Your task to perform on an android device: toggle sleep mode Image 0: 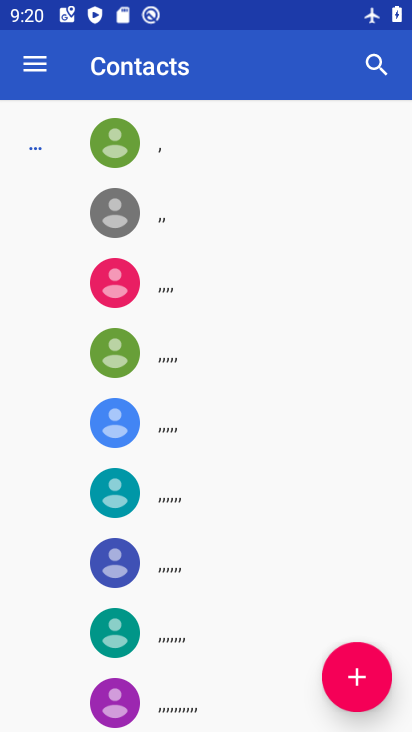
Step 0: press home button
Your task to perform on an android device: toggle sleep mode Image 1: 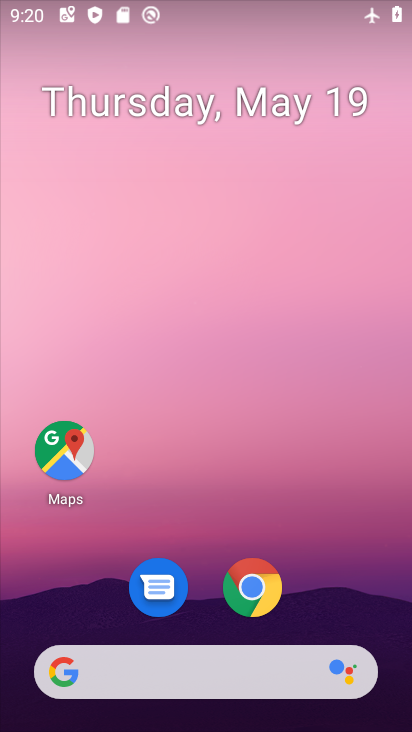
Step 1: click (176, 304)
Your task to perform on an android device: toggle sleep mode Image 2: 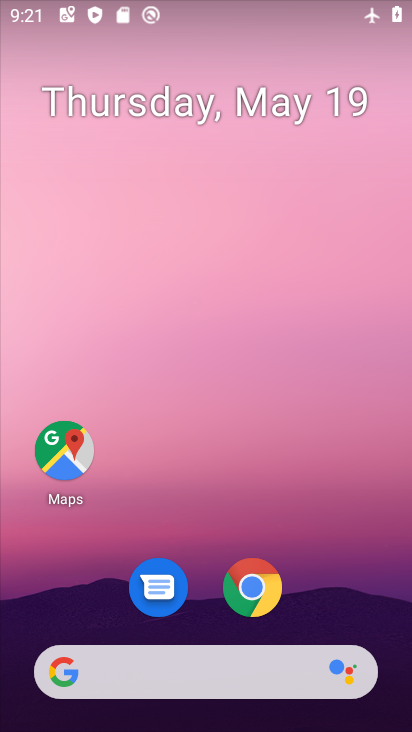
Step 2: drag from (176, 667) to (206, 78)
Your task to perform on an android device: toggle sleep mode Image 3: 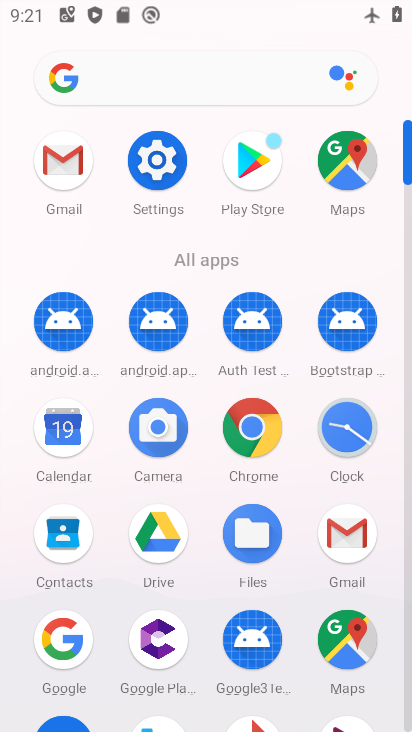
Step 3: click (160, 163)
Your task to perform on an android device: toggle sleep mode Image 4: 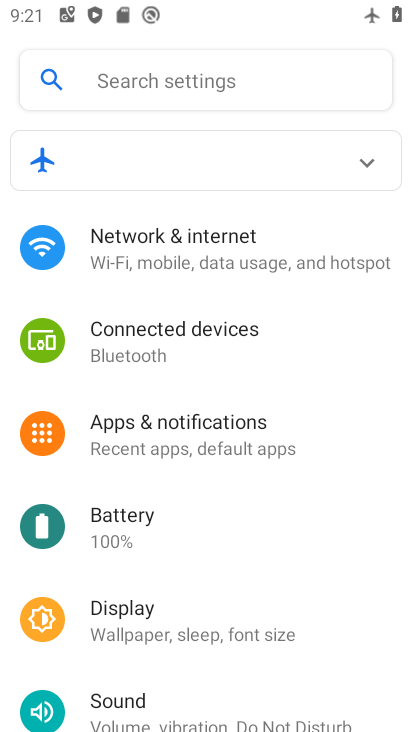
Step 4: click (141, 636)
Your task to perform on an android device: toggle sleep mode Image 5: 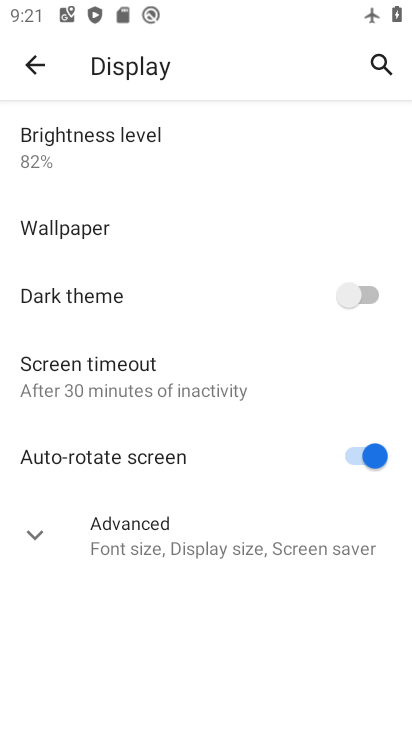
Step 5: click (159, 547)
Your task to perform on an android device: toggle sleep mode Image 6: 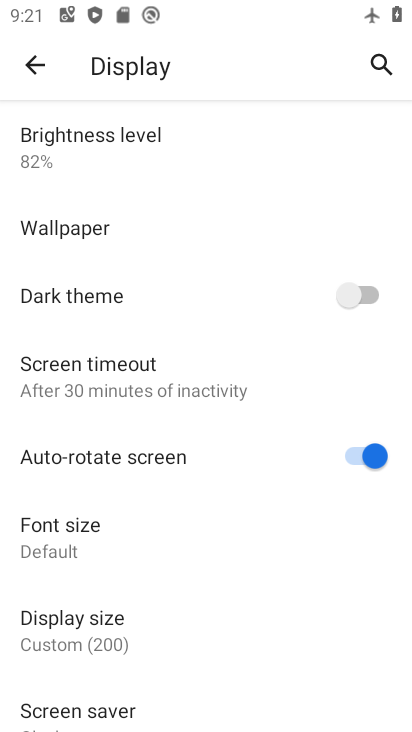
Step 6: task complete